Your task to perform on an android device: Search for the new ikea dresser Image 0: 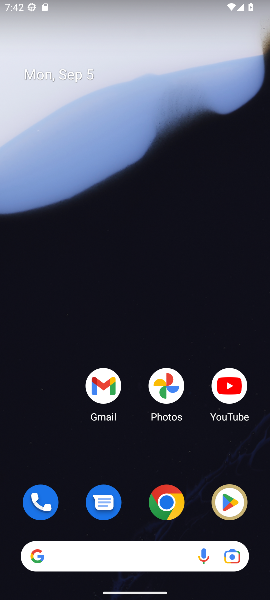
Step 0: drag from (195, 473) to (120, 62)
Your task to perform on an android device: Search for the new ikea dresser Image 1: 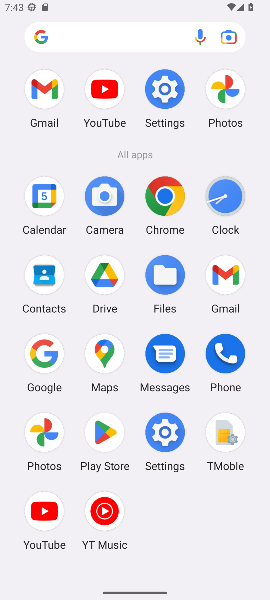
Step 1: click (60, 346)
Your task to perform on an android device: Search for the new ikea dresser Image 2: 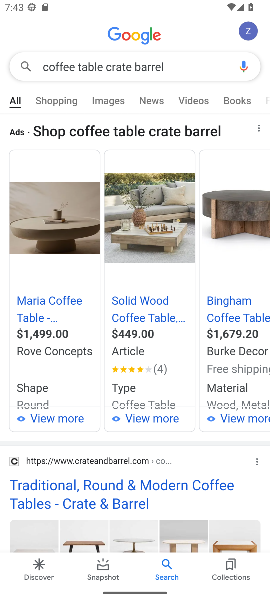
Step 2: press back button
Your task to perform on an android device: Search for the new ikea dresser Image 3: 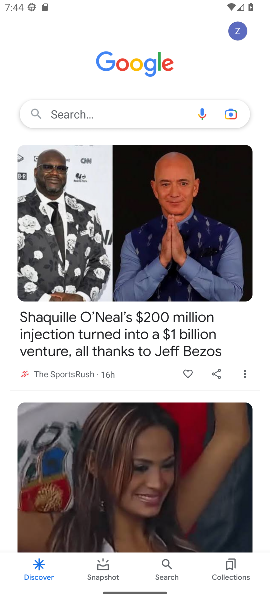
Step 3: click (72, 116)
Your task to perform on an android device: Search for the new ikea dresser Image 4: 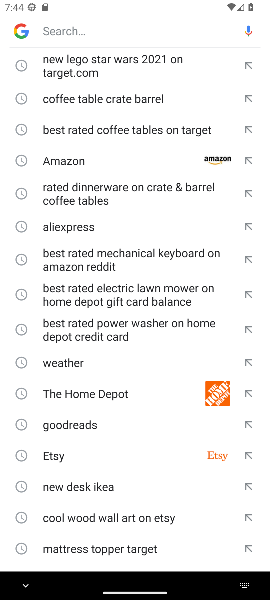
Step 4: type "new ikea dresser"
Your task to perform on an android device: Search for the new ikea dresser Image 5: 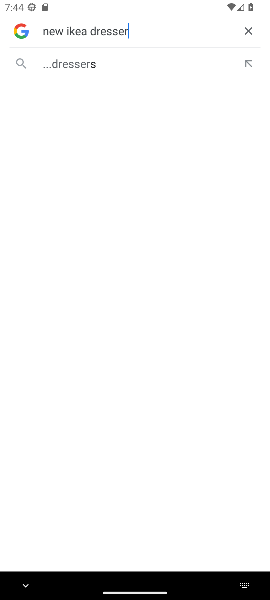
Step 5: click (85, 66)
Your task to perform on an android device: Search for the new ikea dresser Image 6: 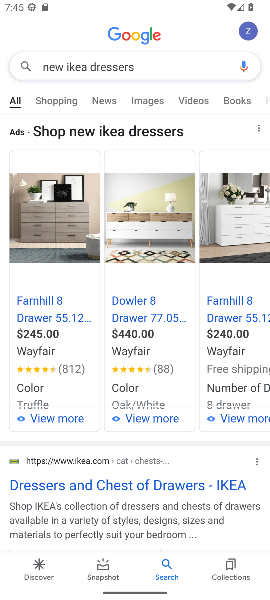
Step 6: task complete